Your task to perform on an android device: open app "Facebook Lite" (install if not already installed) and enter user name: "suppers@inbox.com" and password: "downplayed" Image 0: 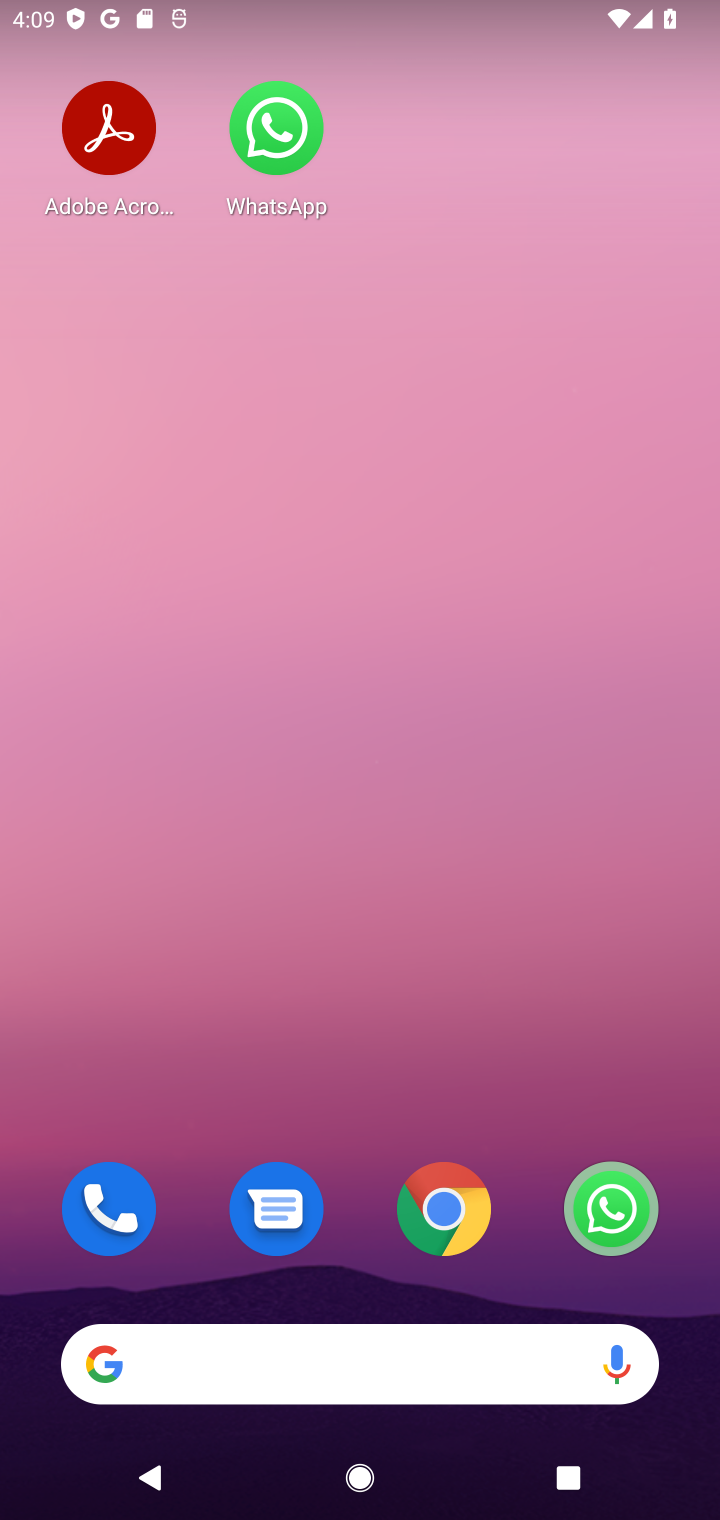
Step 0: drag from (385, 1296) to (504, 222)
Your task to perform on an android device: open app "Facebook Lite" (install if not already installed) and enter user name: "suppers@inbox.com" and password: "downplayed" Image 1: 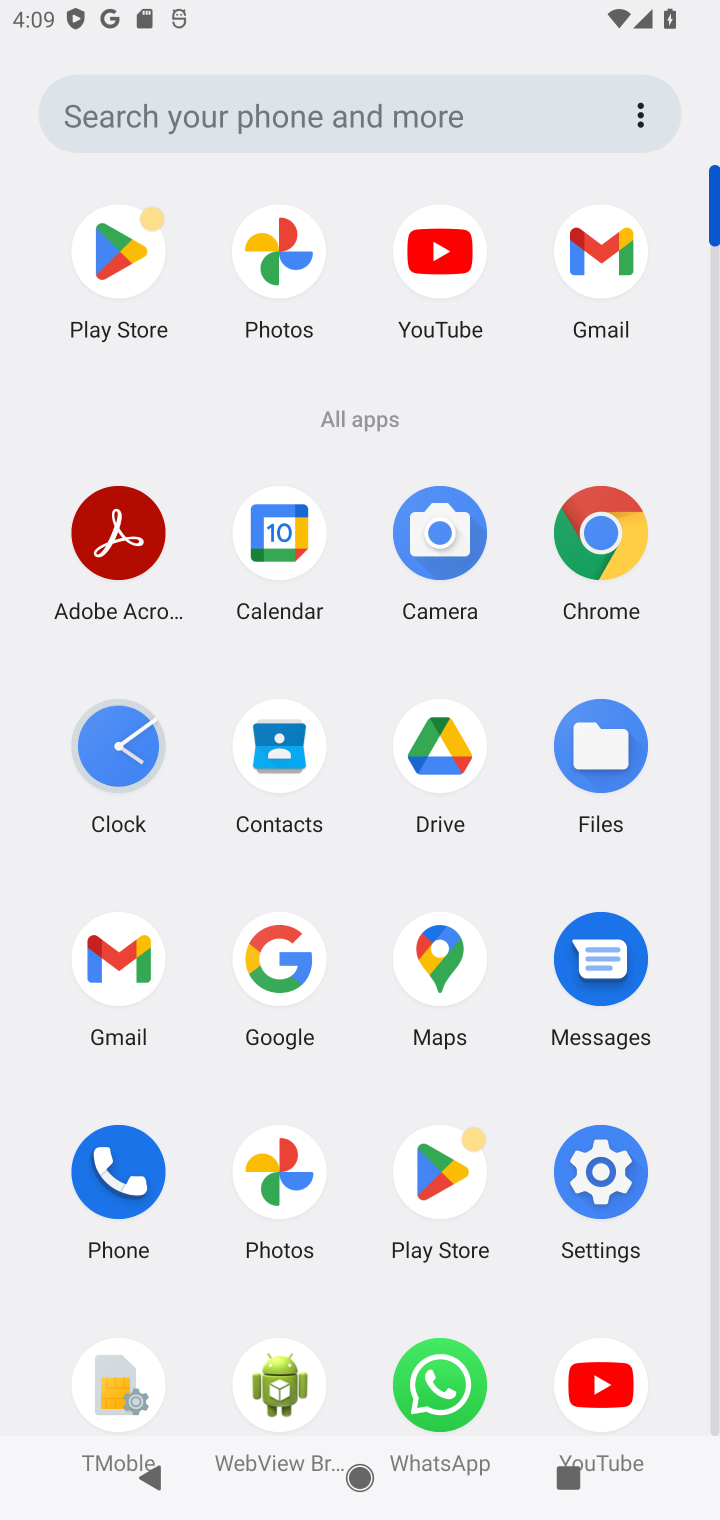
Step 1: click (119, 271)
Your task to perform on an android device: open app "Facebook Lite" (install if not already installed) and enter user name: "suppers@inbox.com" and password: "downplayed" Image 2: 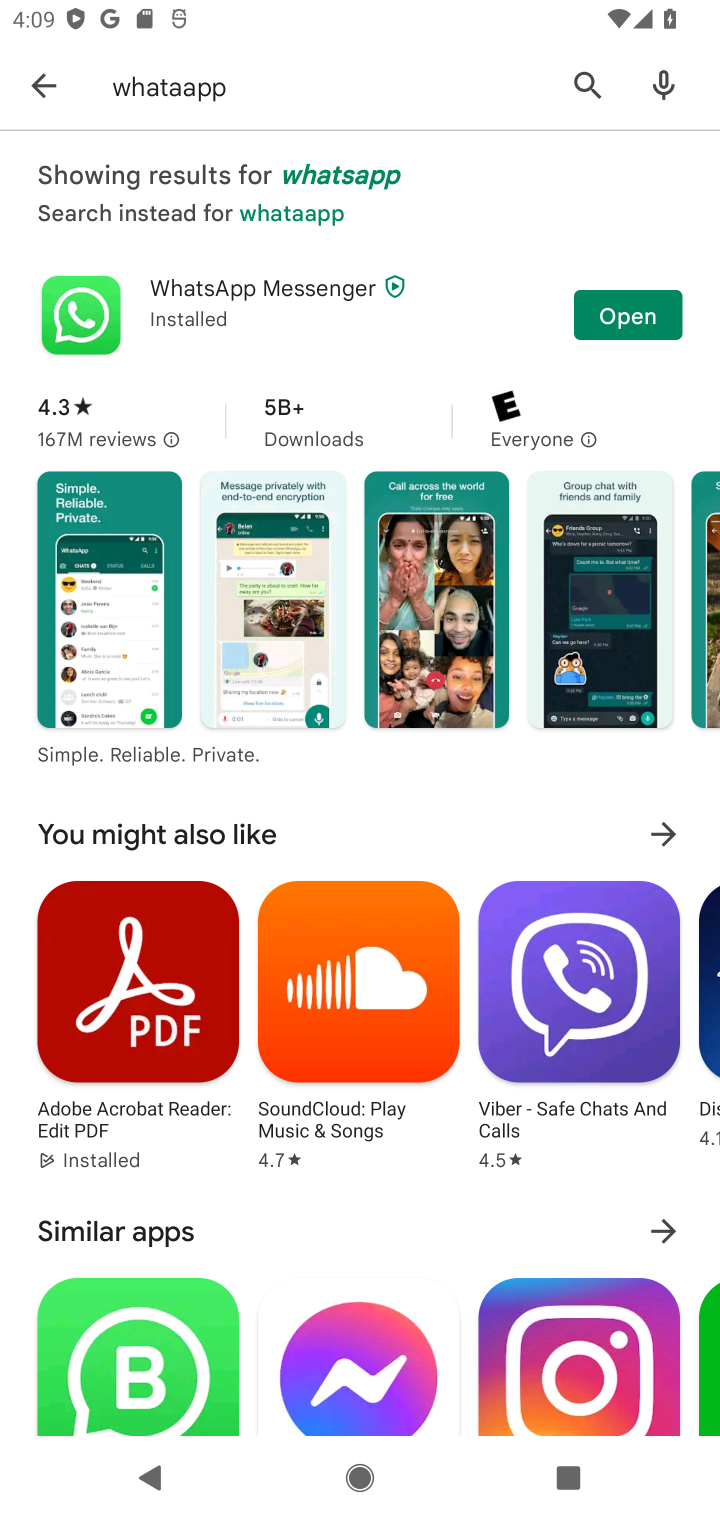
Step 2: click (549, 84)
Your task to perform on an android device: open app "Facebook Lite" (install if not already installed) and enter user name: "suppers@inbox.com" and password: "downplayed" Image 3: 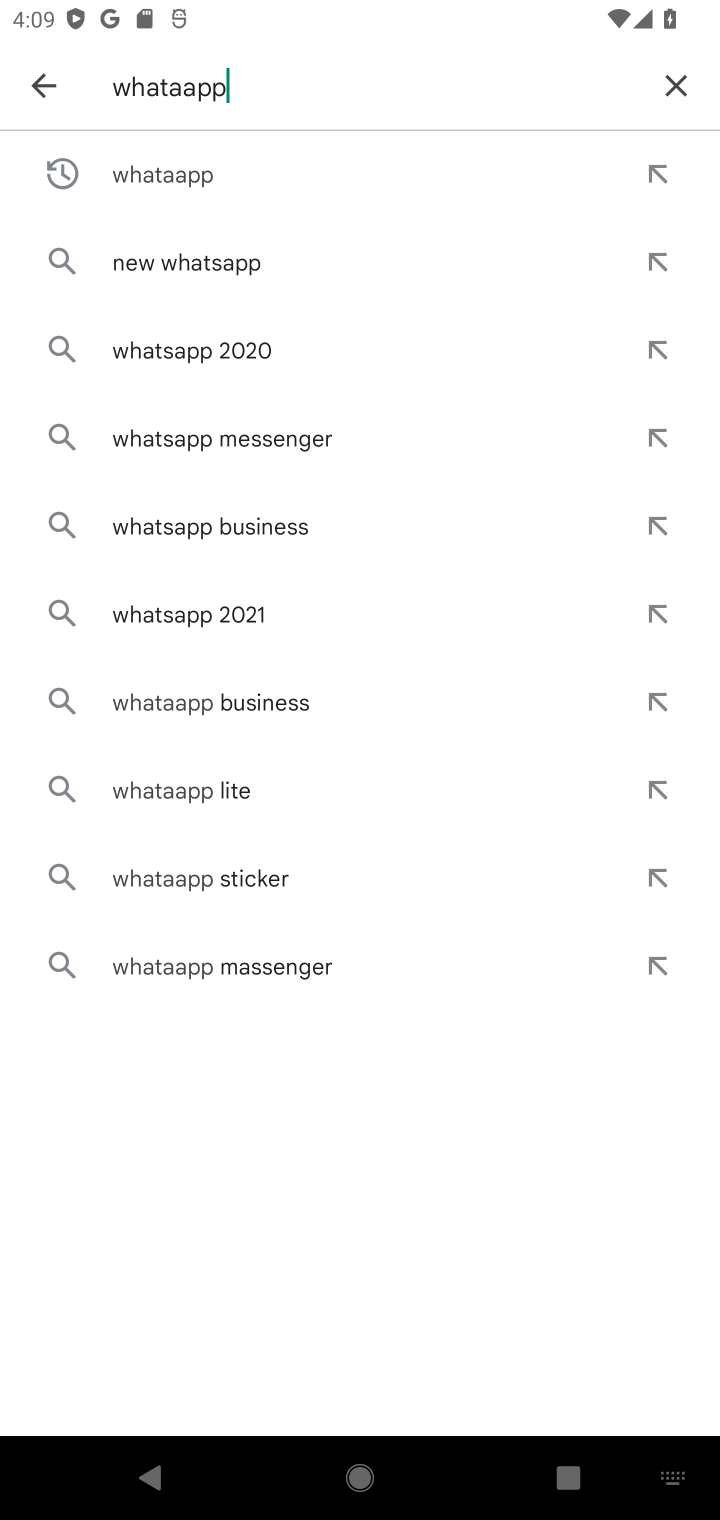
Step 3: click (675, 89)
Your task to perform on an android device: open app "Facebook Lite" (install if not already installed) and enter user name: "suppers@inbox.com" and password: "downplayed" Image 4: 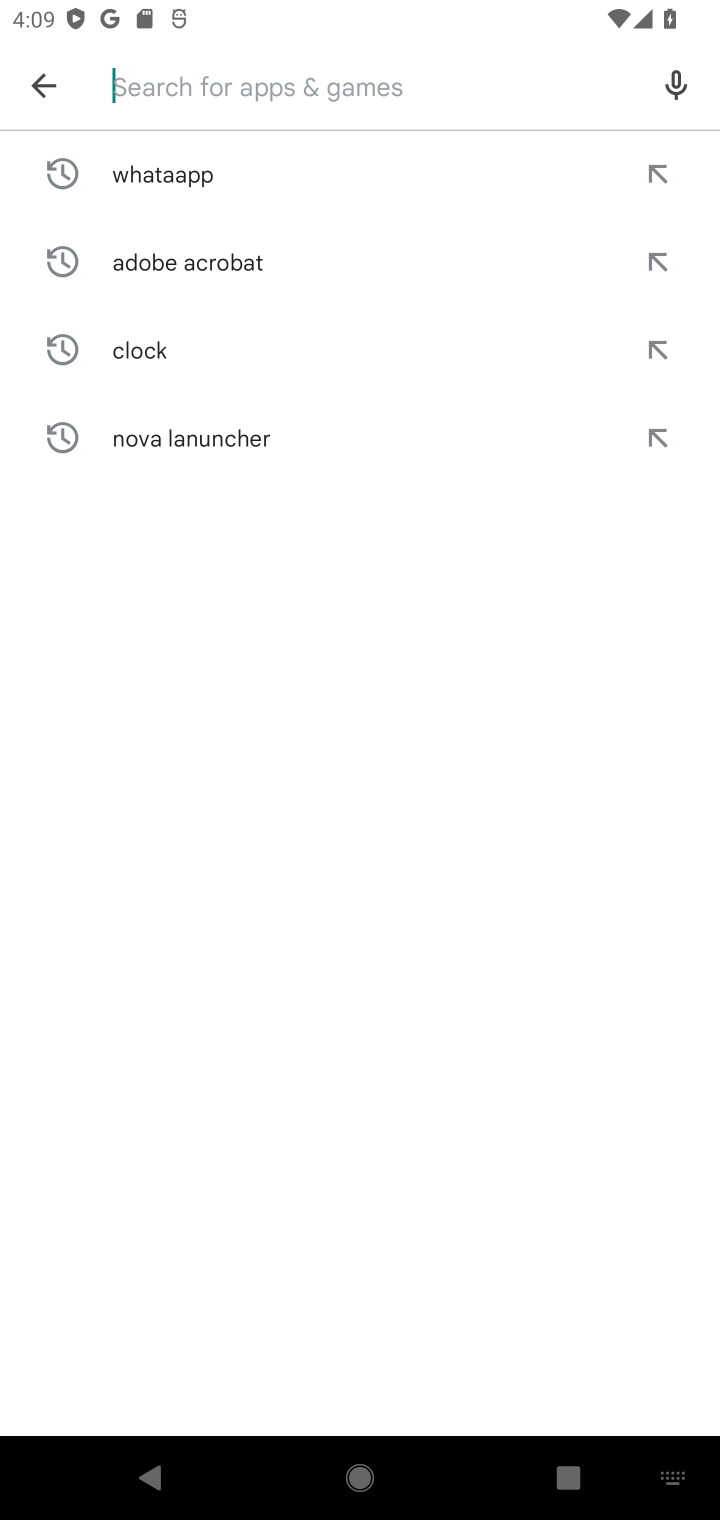
Step 4: type "facebooklite"
Your task to perform on an android device: open app "Facebook Lite" (install if not already installed) and enter user name: "suppers@inbox.com" and password: "downplayed" Image 5: 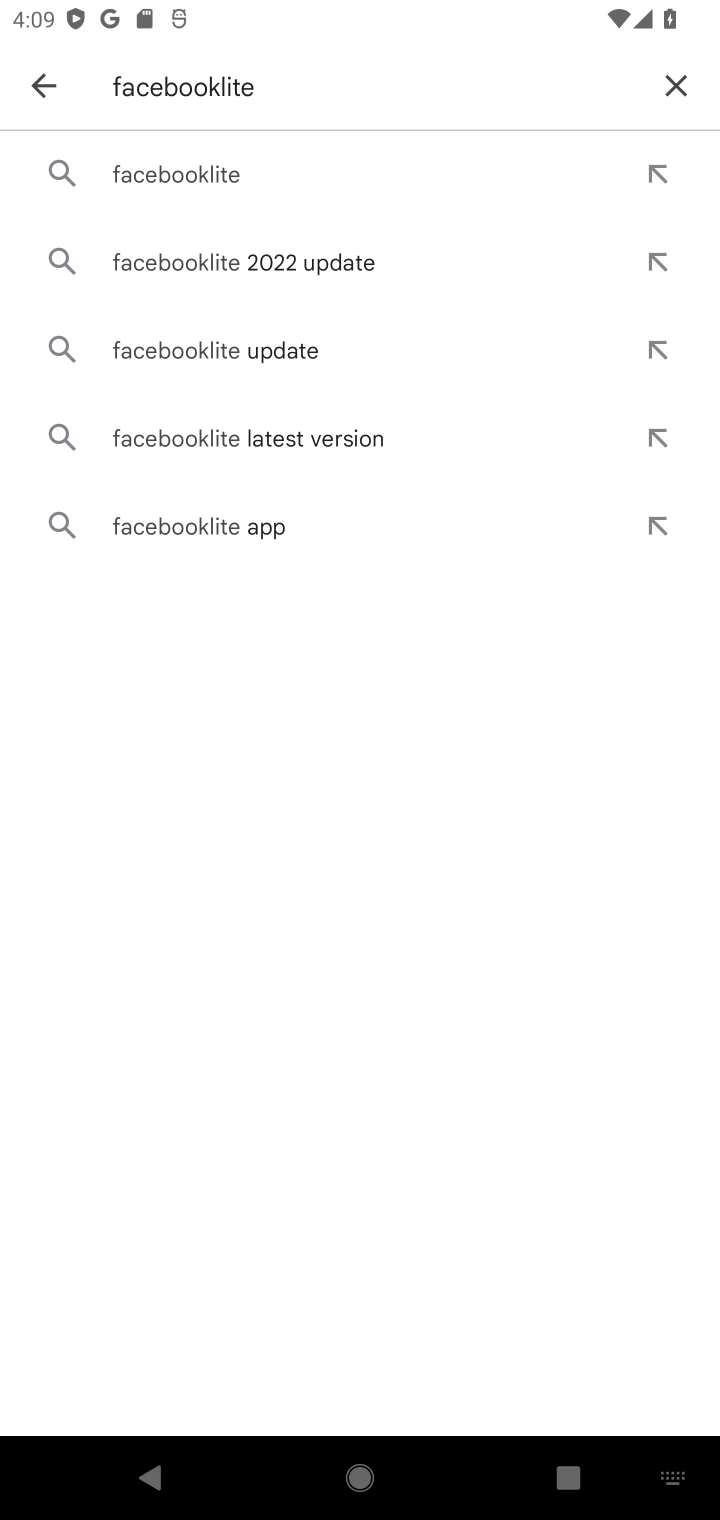
Step 5: click (132, 172)
Your task to perform on an android device: open app "Facebook Lite" (install if not already installed) and enter user name: "suppers@inbox.com" and password: "downplayed" Image 6: 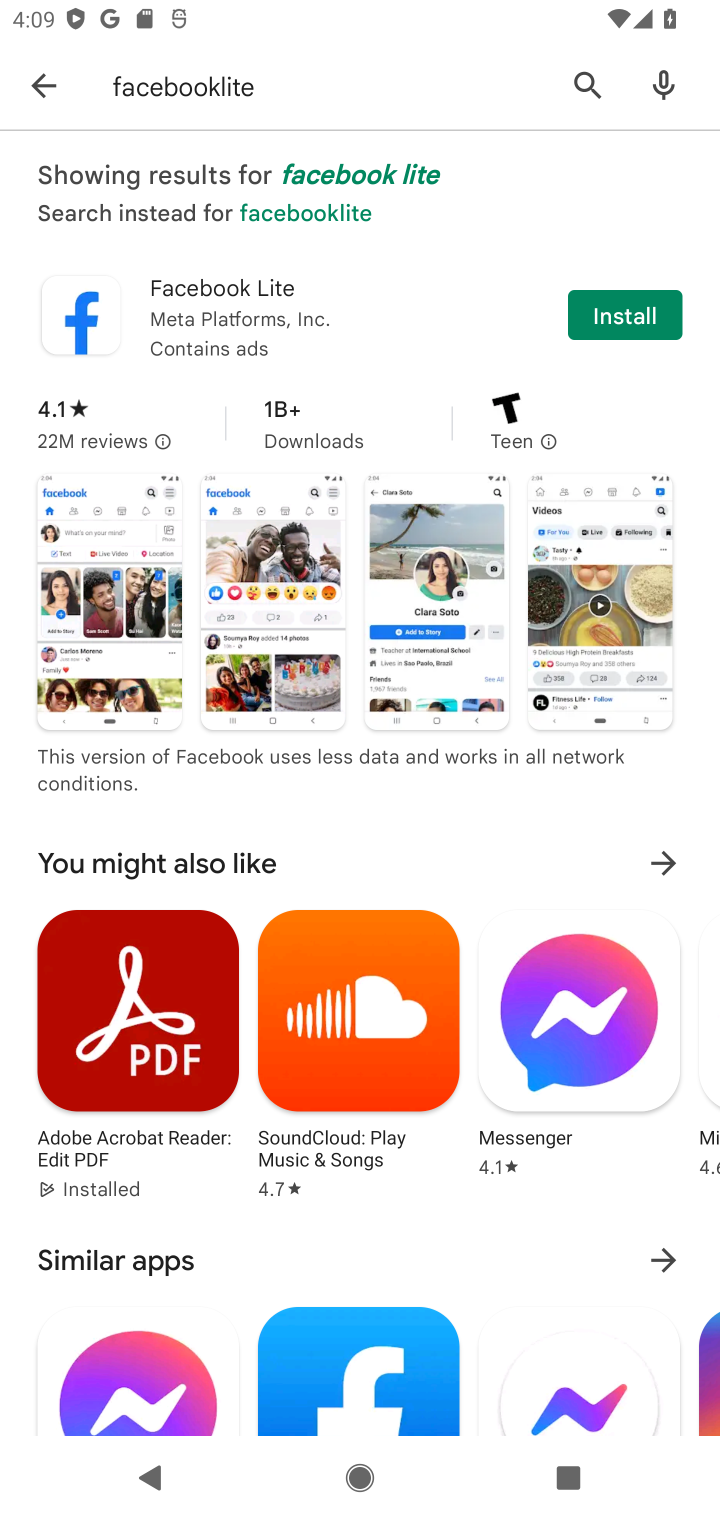
Step 6: click (601, 322)
Your task to perform on an android device: open app "Facebook Lite" (install if not already installed) and enter user name: "suppers@inbox.com" and password: "downplayed" Image 7: 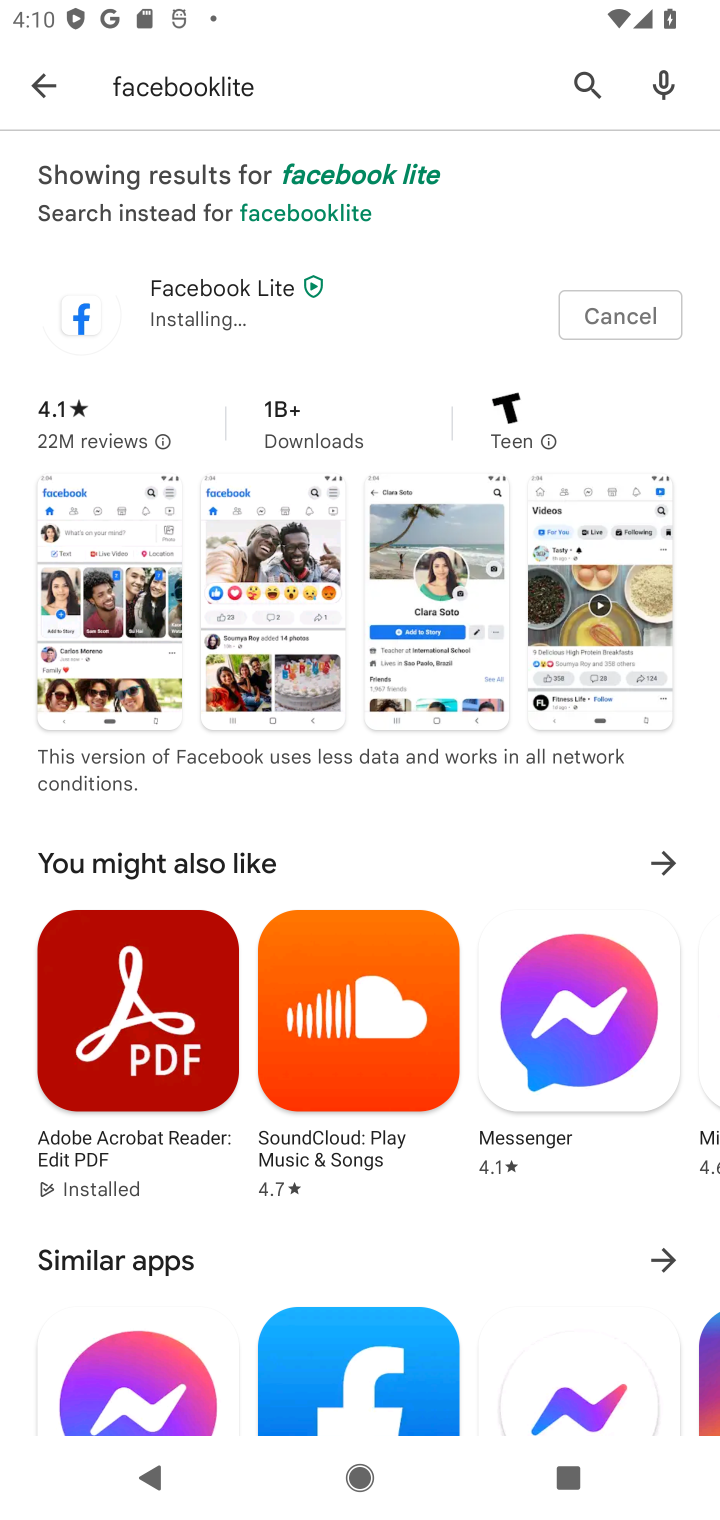
Step 7: task complete